Your task to perform on an android device: turn on the 24-hour format for clock Image 0: 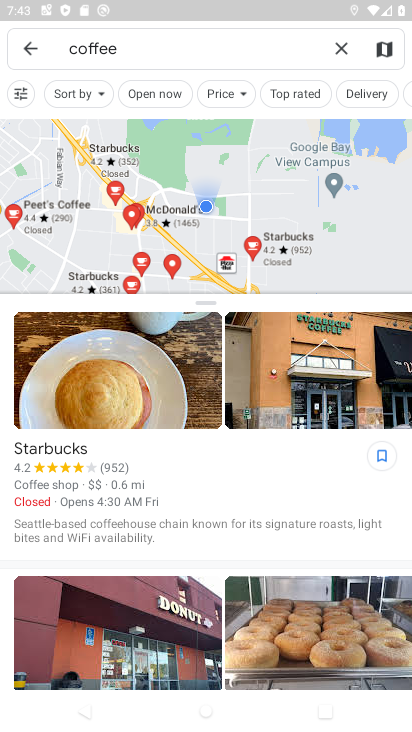
Step 0: press home button
Your task to perform on an android device: turn on the 24-hour format for clock Image 1: 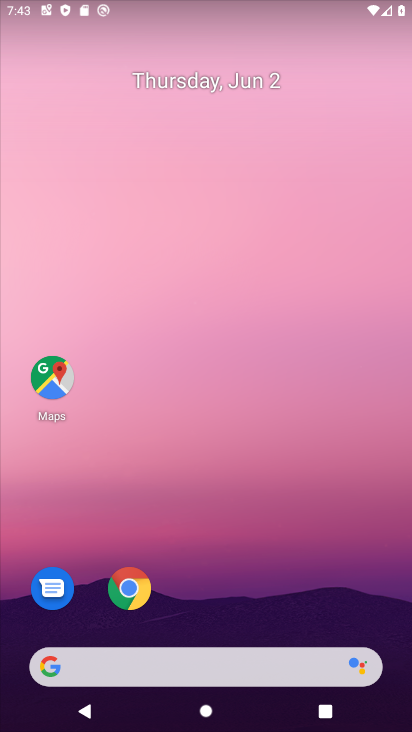
Step 1: drag from (270, 508) to (282, 274)
Your task to perform on an android device: turn on the 24-hour format for clock Image 2: 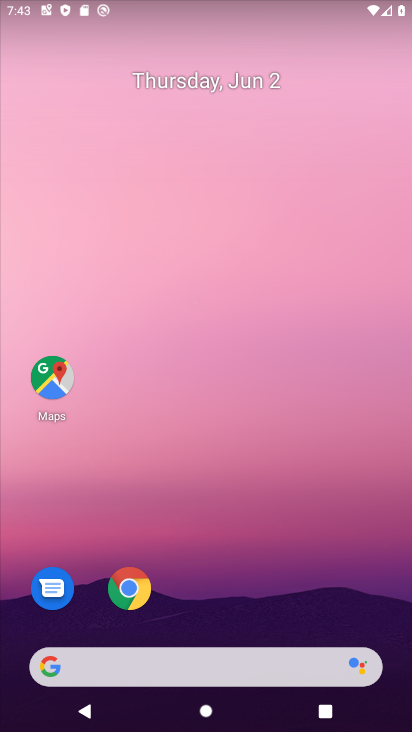
Step 2: drag from (229, 636) to (235, 346)
Your task to perform on an android device: turn on the 24-hour format for clock Image 3: 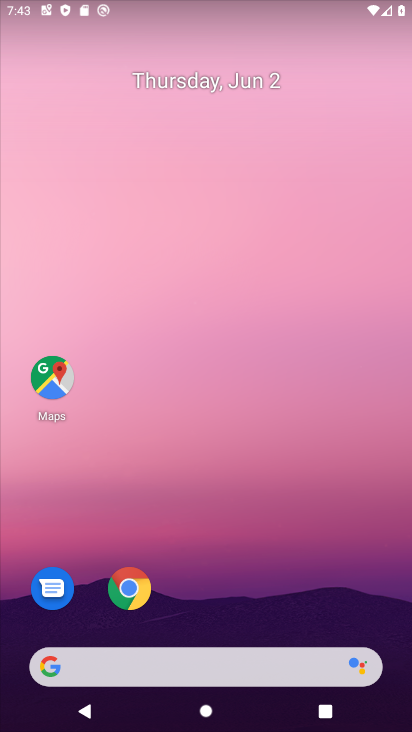
Step 3: click (251, 420)
Your task to perform on an android device: turn on the 24-hour format for clock Image 4: 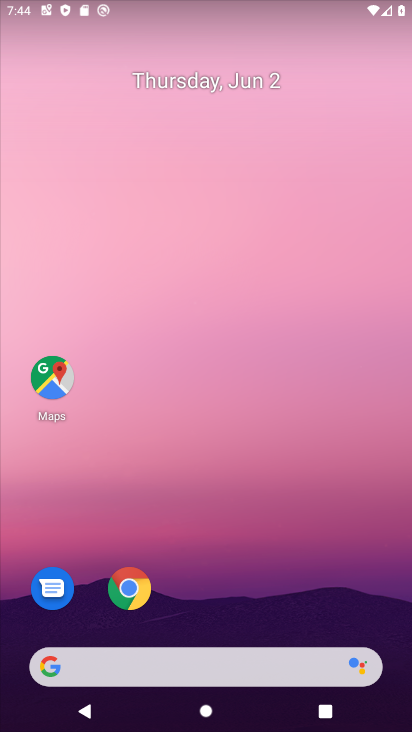
Step 4: drag from (278, 656) to (276, 51)
Your task to perform on an android device: turn on the 24-hour format for clock Image 5: 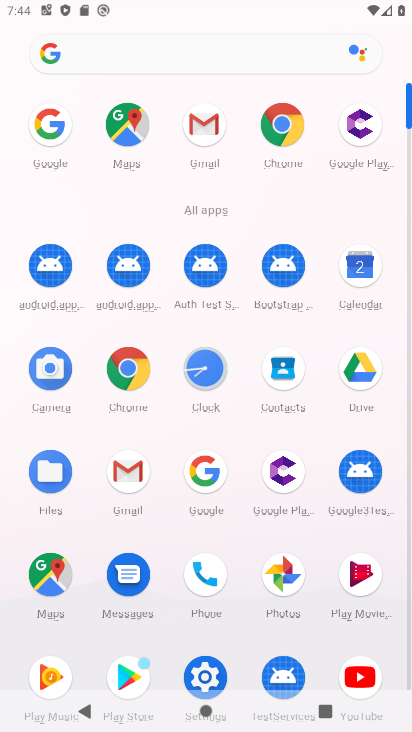
Step 5: click (201, 394)
Your task to perform on an android device: turn on the 24-hour format for clock Image 6: 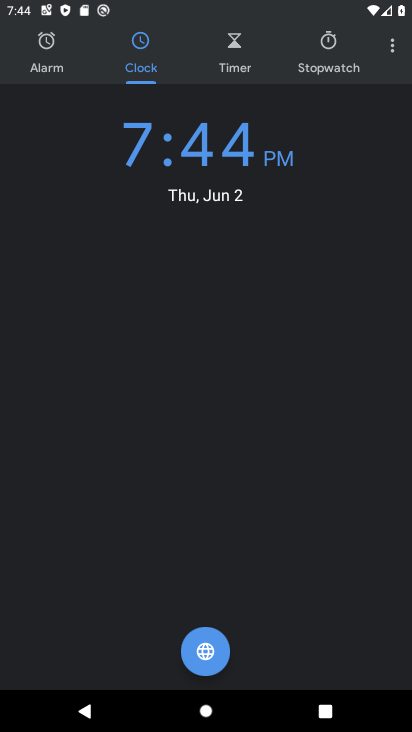
Step 6: click (390, 42)
Your task to perform on an android device: turn on the 24-hour format for clock Image 7: 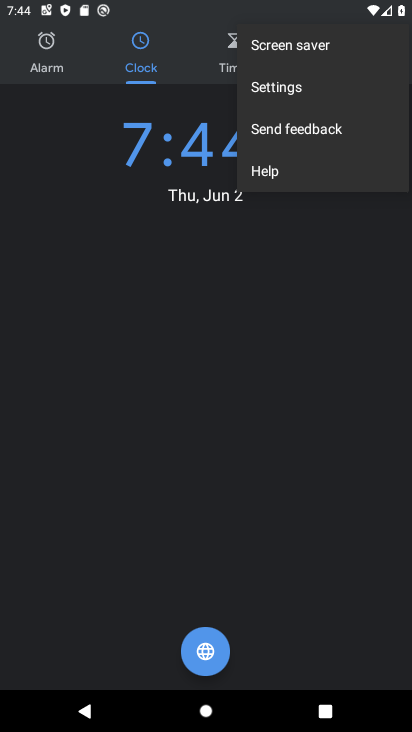
Step 7: click (311, 94)
Your task to perform on an android device: turn on the 24-hour format for clock Image 8: 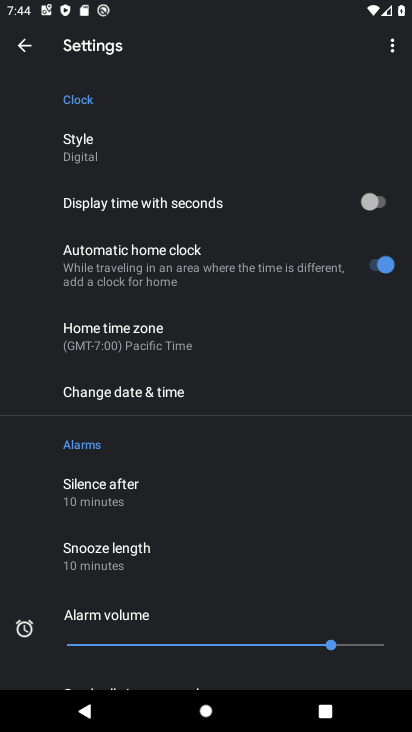
Step 8: click (151, 408)
Your task to perform on an android device: turn on the 24-hour format for clock Image 9: 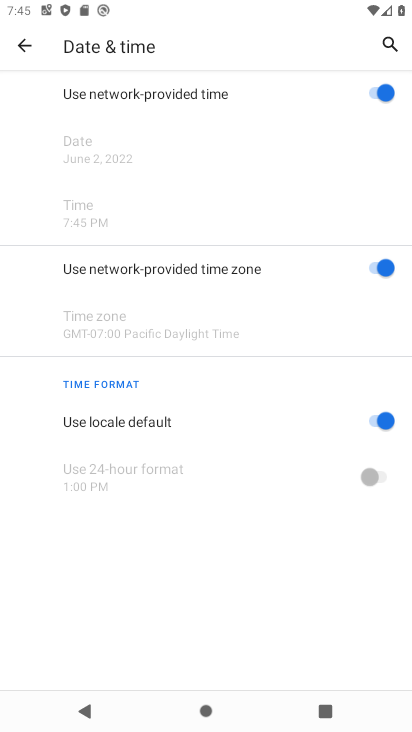
Step 9: task complete